Your task to perform on an android device: Open Youtube and go to "Your channel" Image 0: 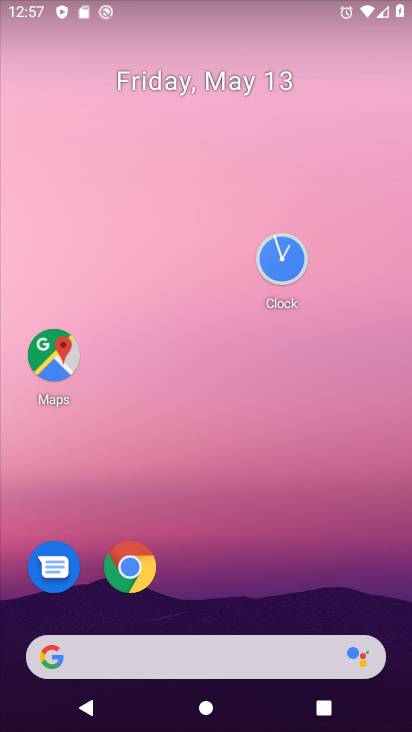
Step 0: drag from (260, 598) to (245, 64)
Your task to perform on an android device: Open Youtube and go to "Your channel" Image 1: 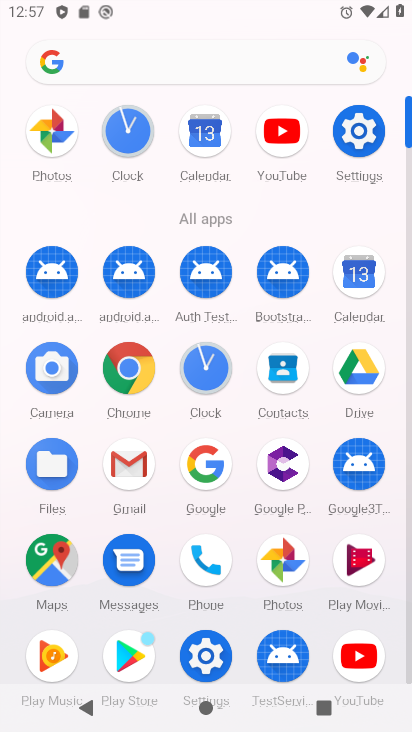
Step 1: click (371, 649)
Your task to perform on an android device: Open Youtube and go to "Your channel" Image 2: 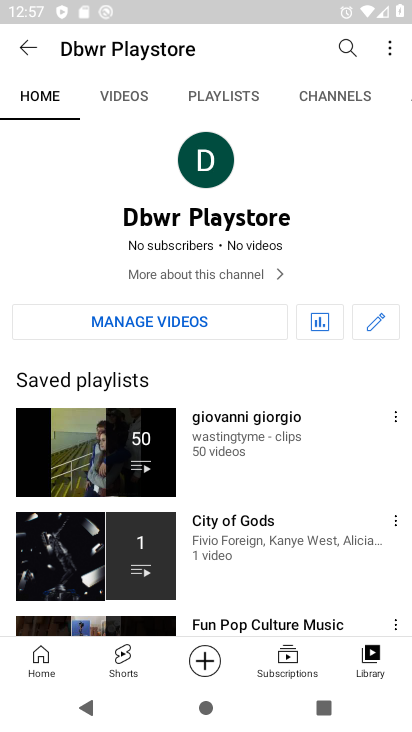
Step 2: click (31, 54)
Your task to perform on an android device: Open Youtube and go to "Your channel" Image 3: 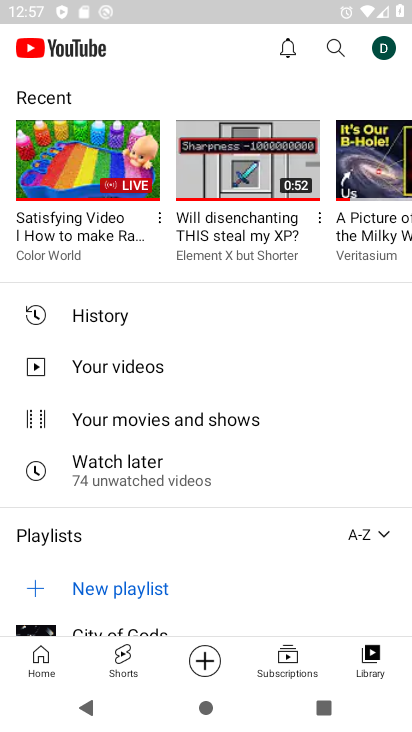
Step 3: click (381, 55)
Your task to perform on an android device: Open Youtube and go to "Your channel" Image 4: 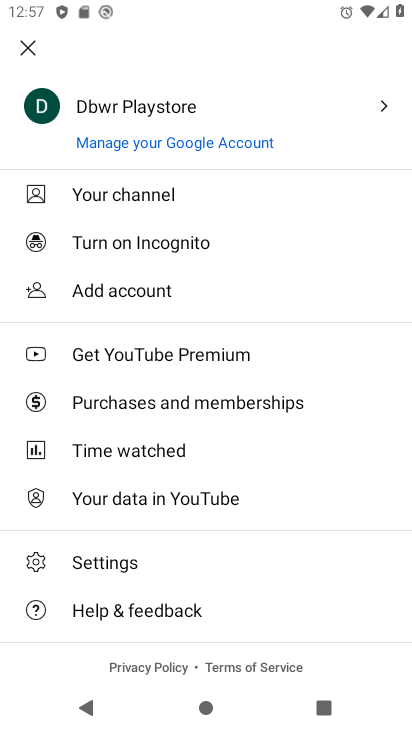
Step 4: click (234, 191)
Your task to perform on an android device: Open Youtube and go to "Your channel" Image 5: 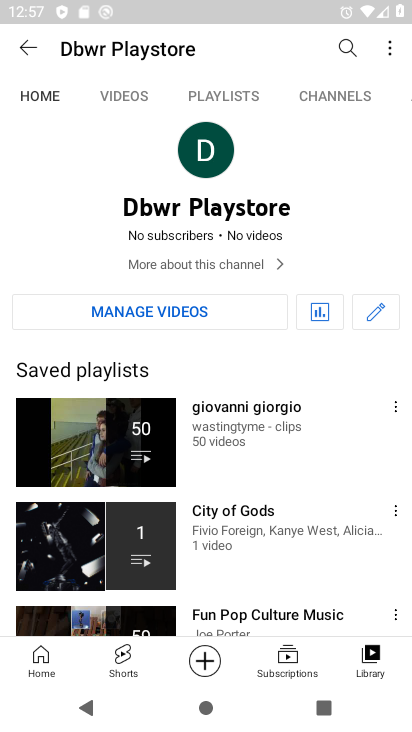
Step 5: task complete